Your task to perform on an android device: Search for the best Nike running shoes on Nike.com Image 0: 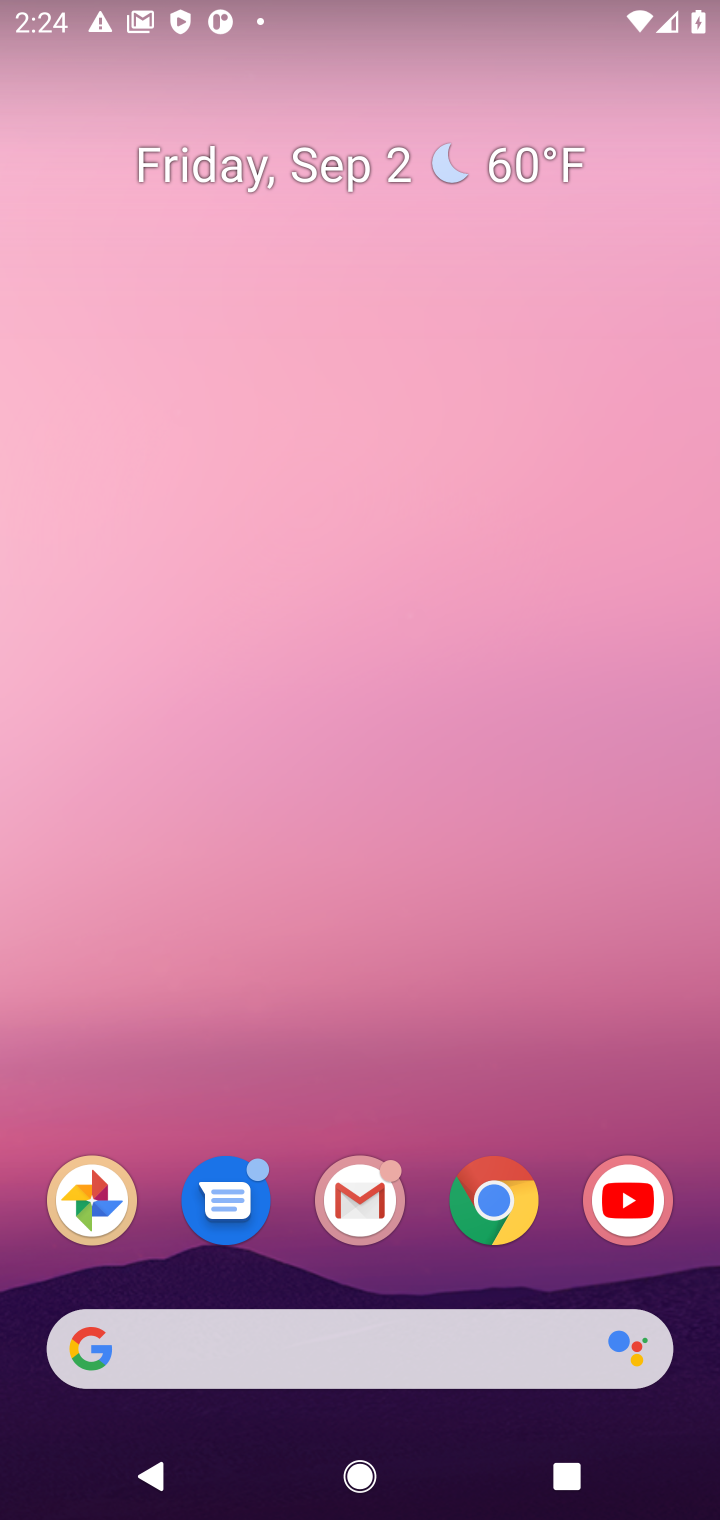
Step 0: click (494, 1195)
Your task to perform on an android device: Search for the best Nike running shoes on Nike.com Image 1: 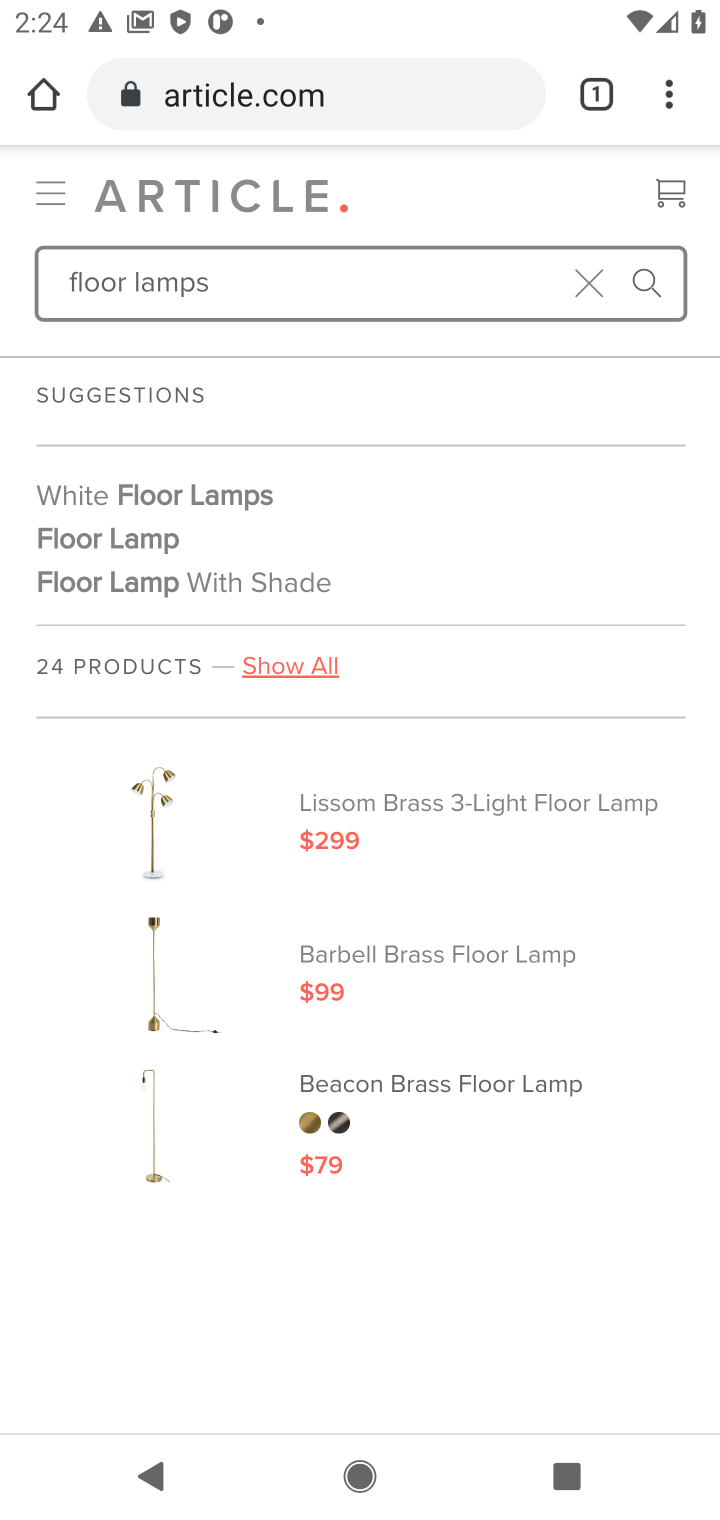
Step 1: click (461, 87)
Your task to perform on an android device: Search for the best Nike running shoes on Nike.com Image 2: 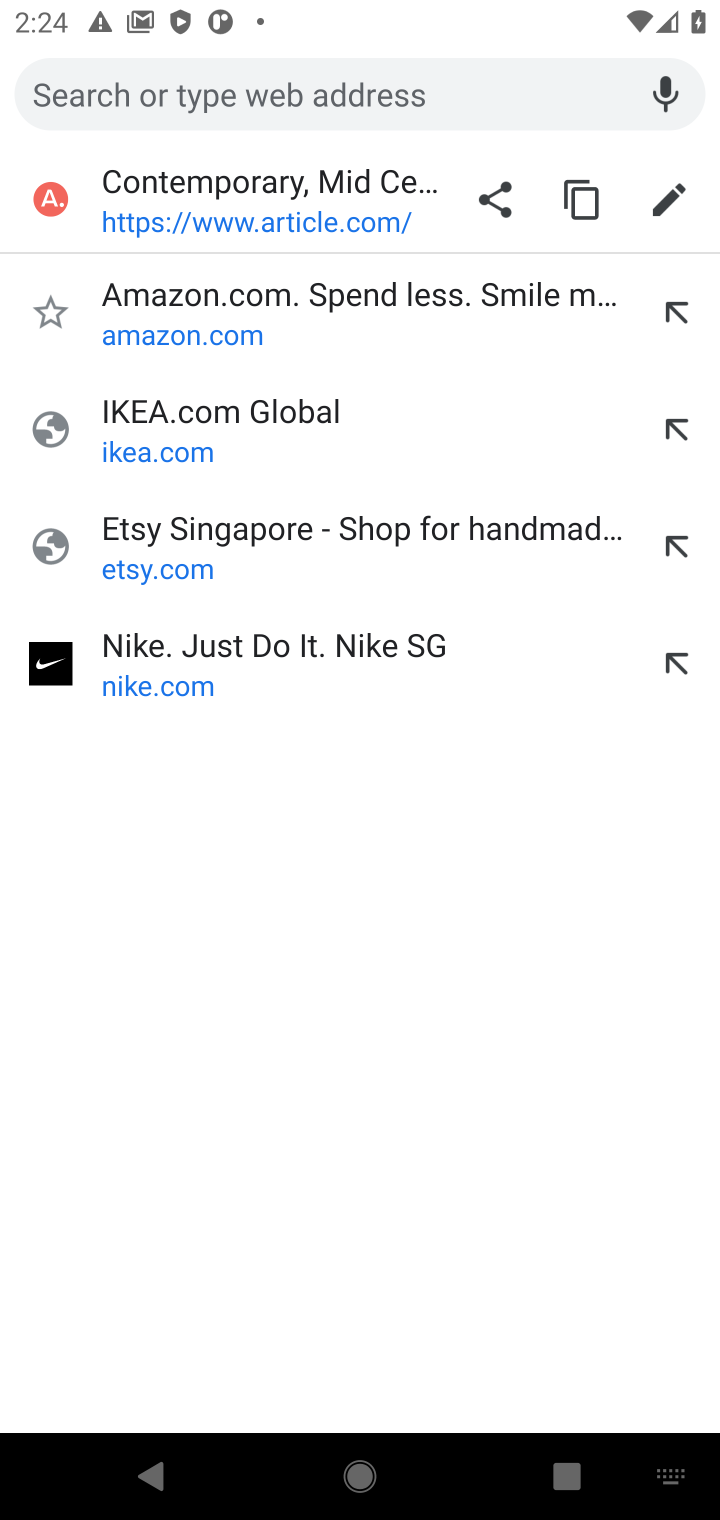
Step 2: type "Nike.com"
Your task to perform on an android device: Search for the best Nike running shoes on Nike.com Image 3: 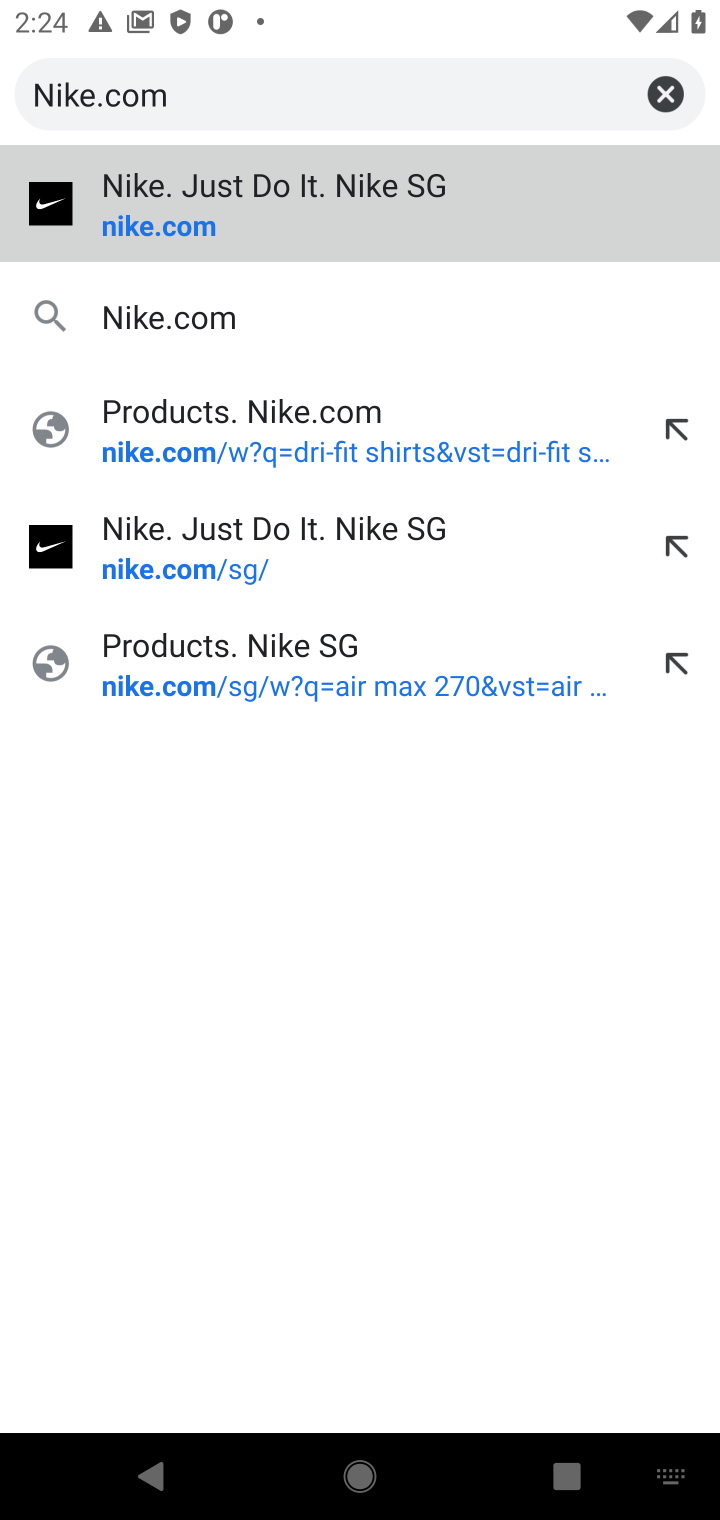
Step 3: press enter
Your task to perform on an android device: Search for the best Nike running shoes on Nike.com Image 4: 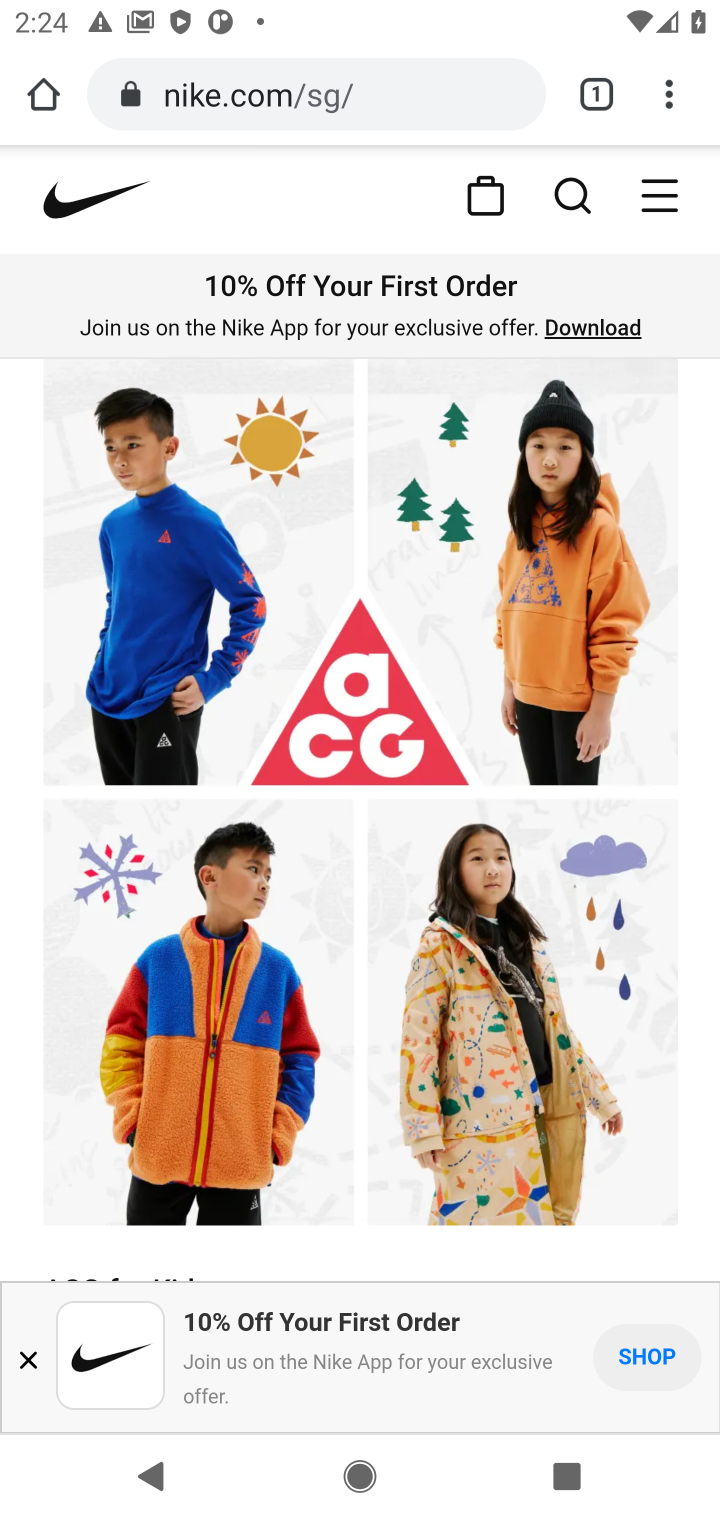
Step 4: click (562, 191)
Your task to perform on an android device: Search for the best Nike running shoes on Nike.com Image 5: 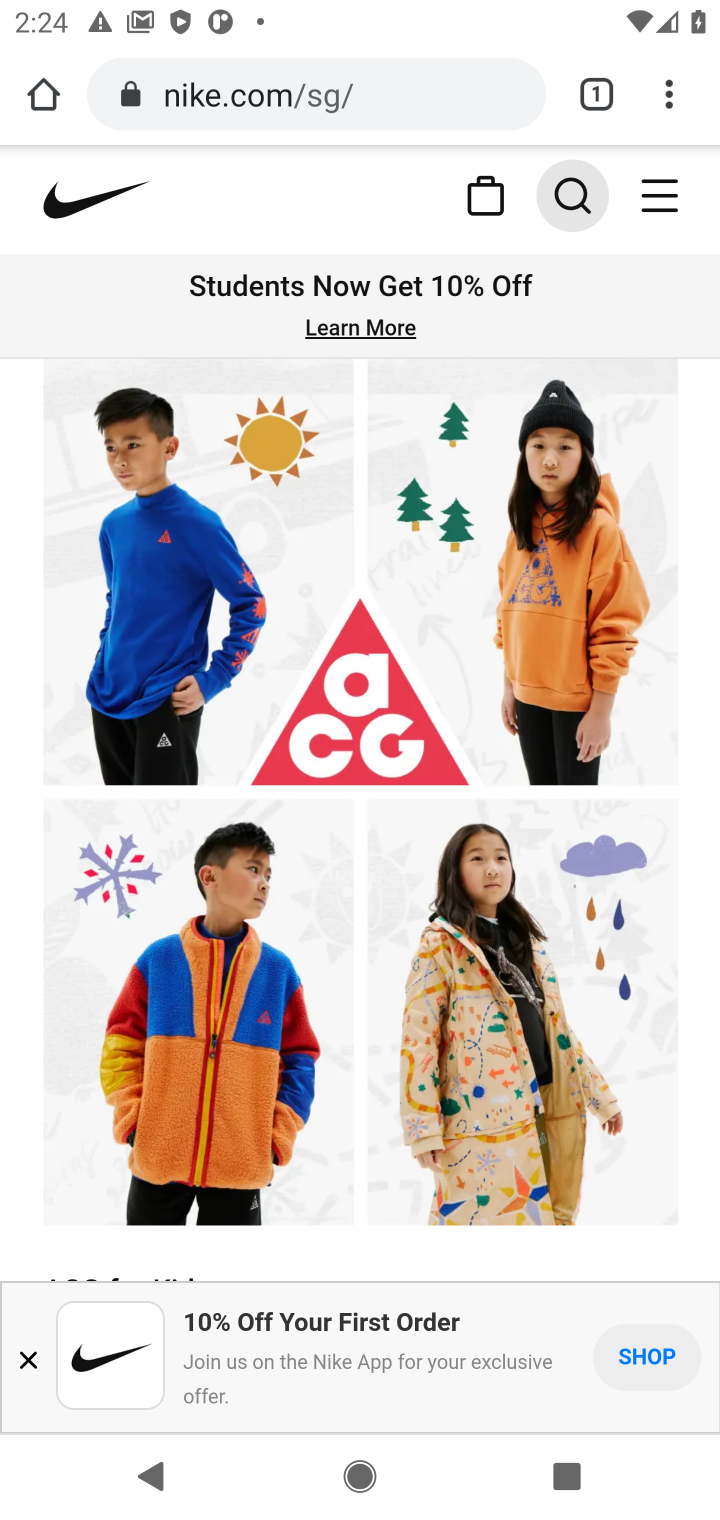
Step 5: click (581, 193)
Your task to perform on an android device: Search for the best Nike running shoes on Nike.com Image 6: 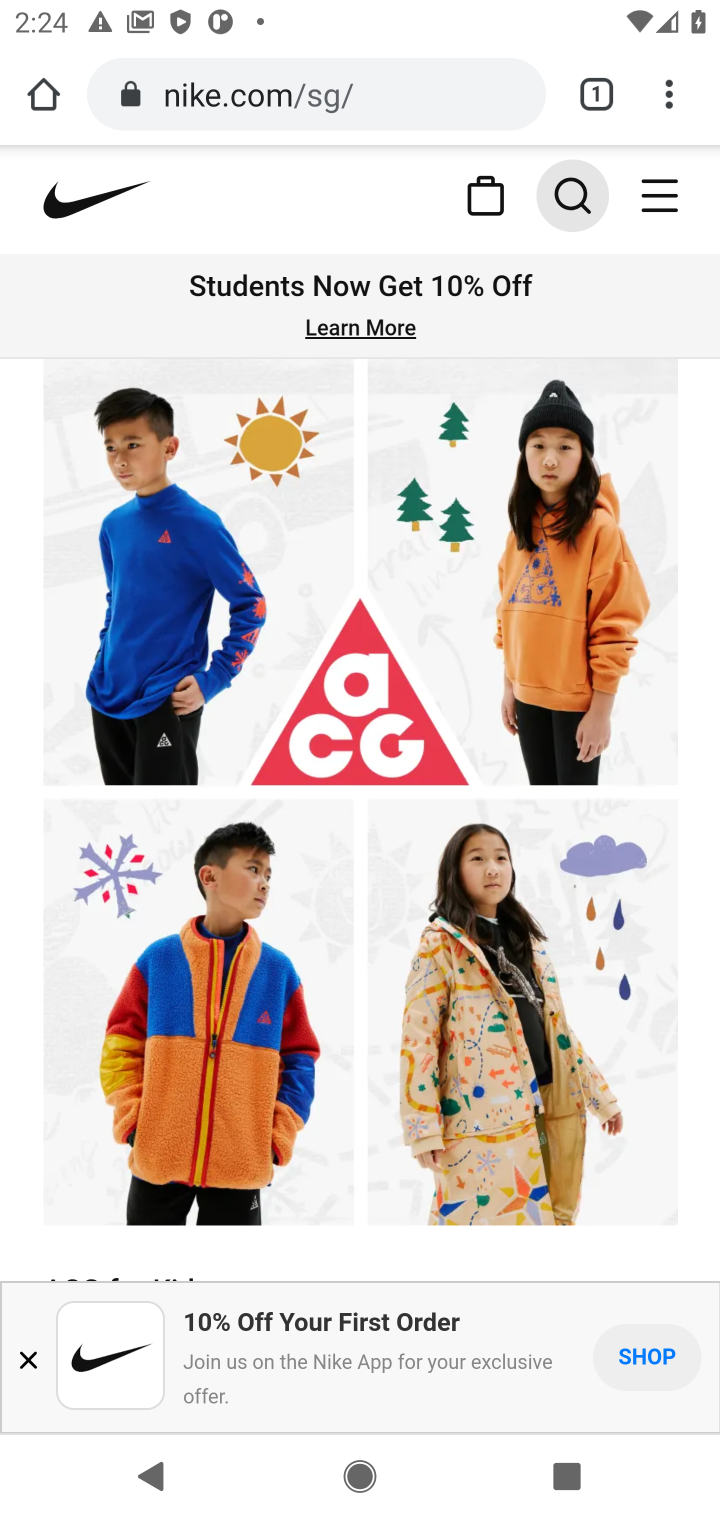
Step 6: click (536, 169)
Your task to perform on an android device: Search for the best Nike running shoes on Nike.com Image 7: 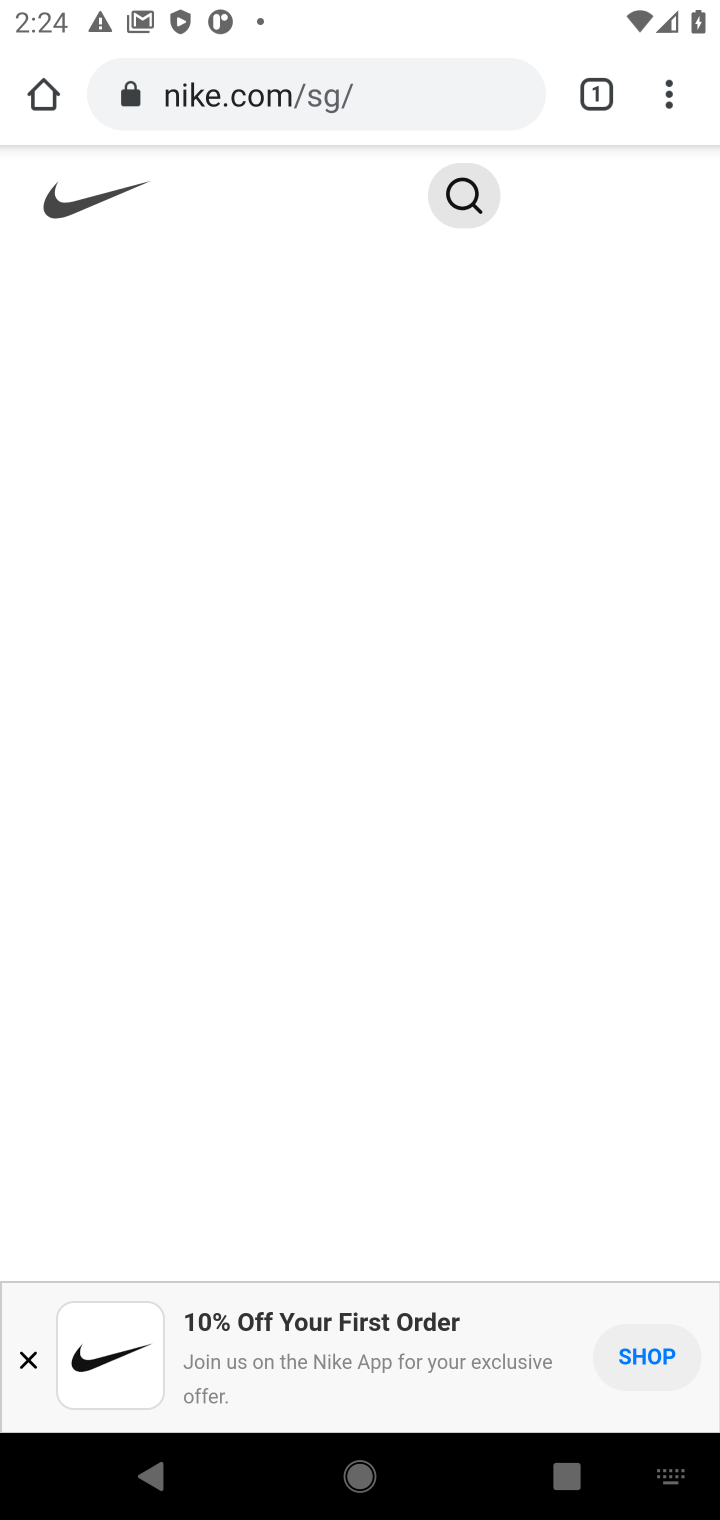
Step 7: click (385, 202)
Your task to perform on an android device: Search for the best Nike running shoes on Nike.com Image 8: 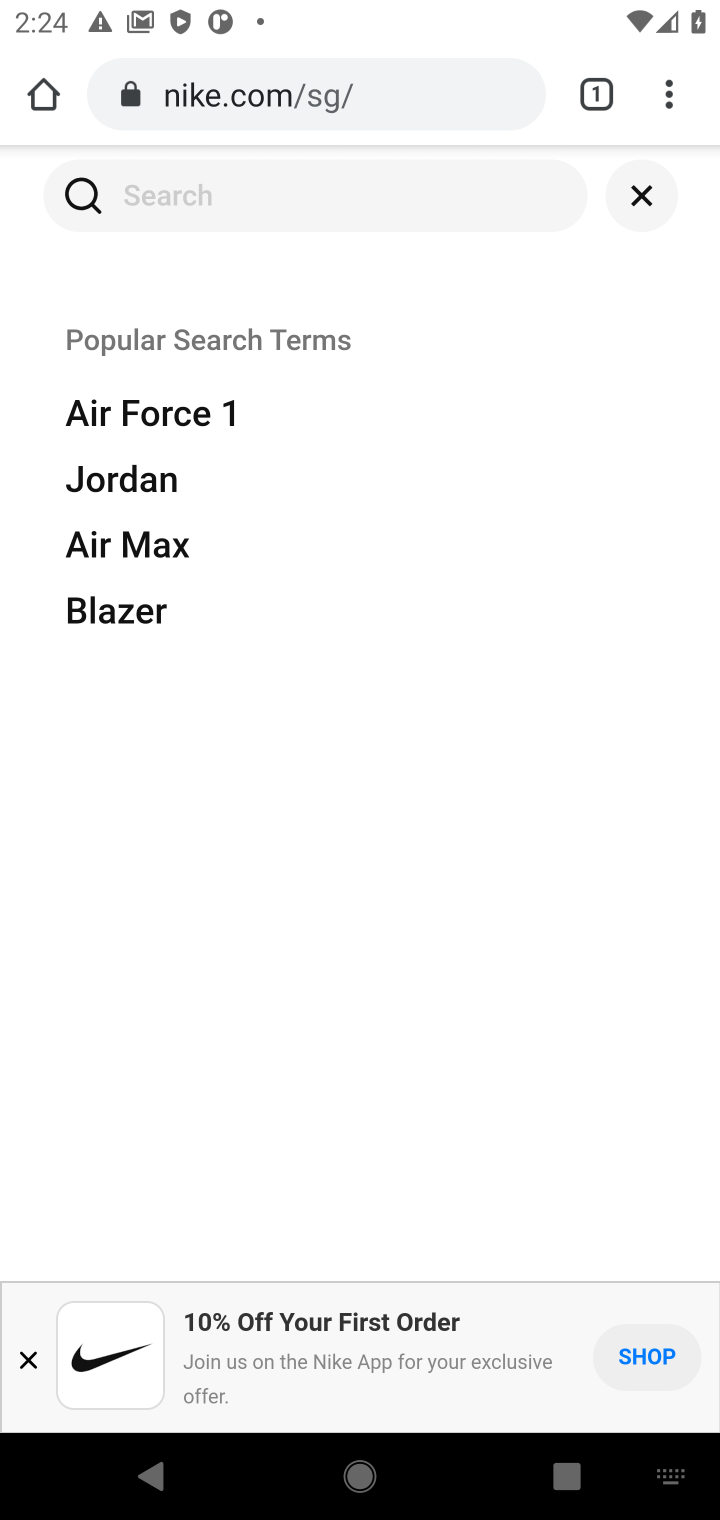
Step 8: type " running shoes"
Your task to perform on an android device: Search for the best Nike running shoes on Nike.com Image 9: 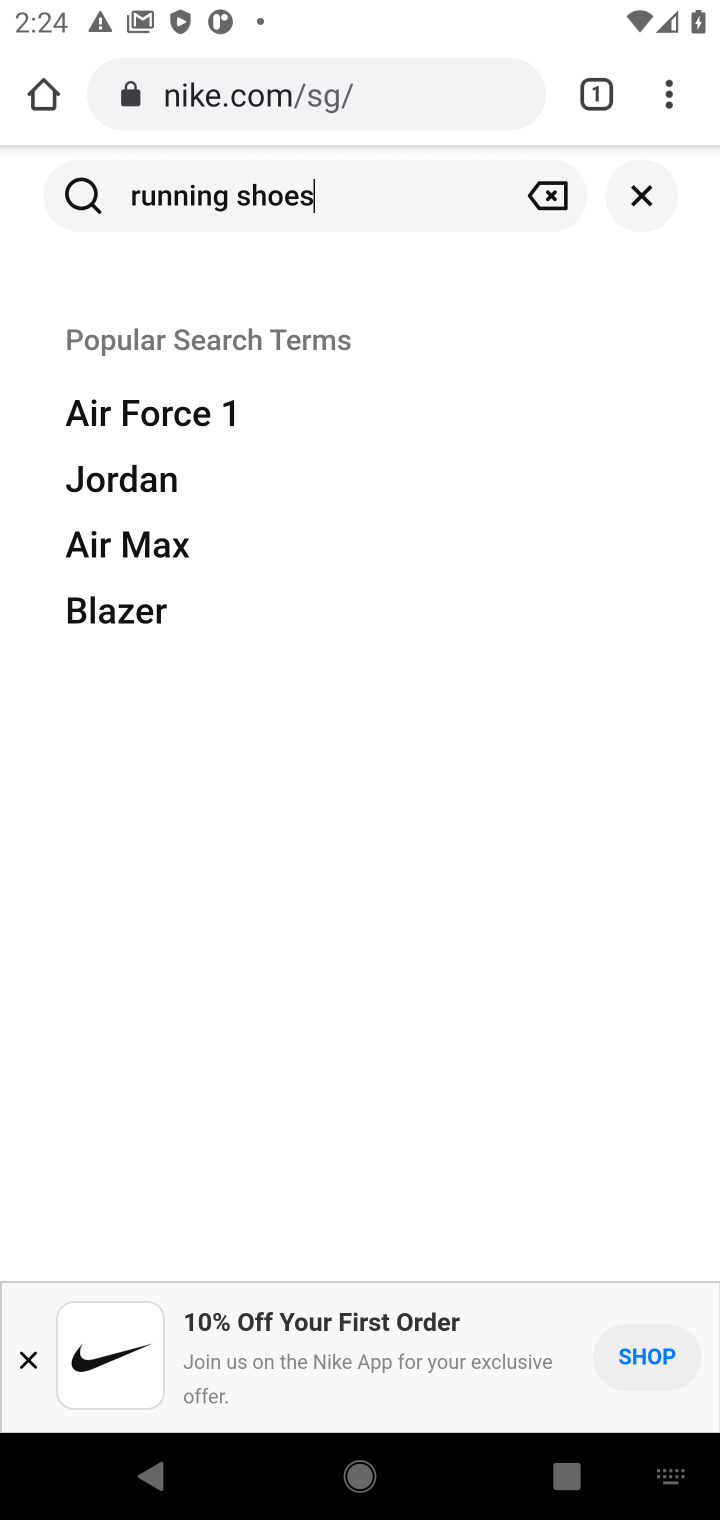
Step 9: press enter
Your task to perform on an android device: Search for the best Nike running shoes on Nike.com Image 10: 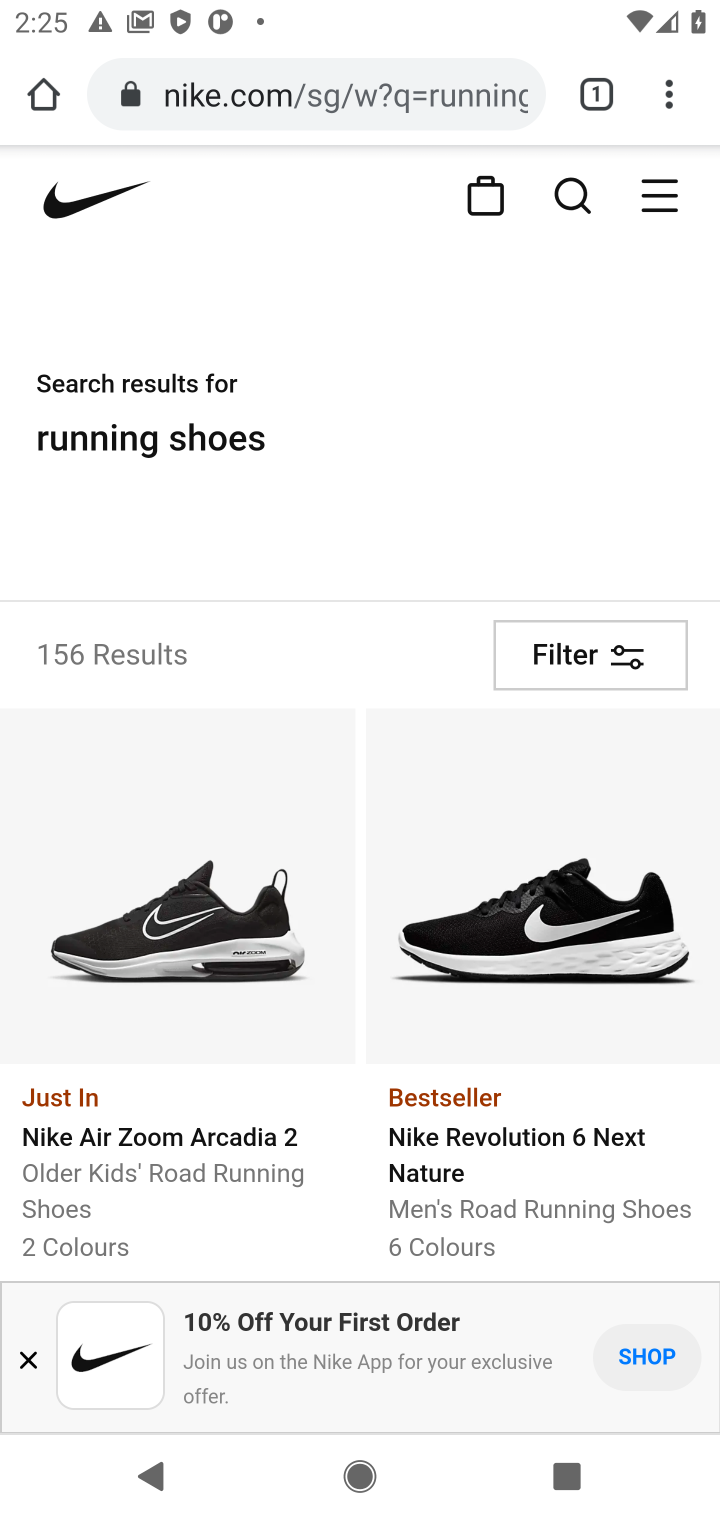
Step 10: drag from (324, 1204) to (581, 366)
Your task to perform on an android device: Search for the best Nike running shoes on Nike.com Image 11: 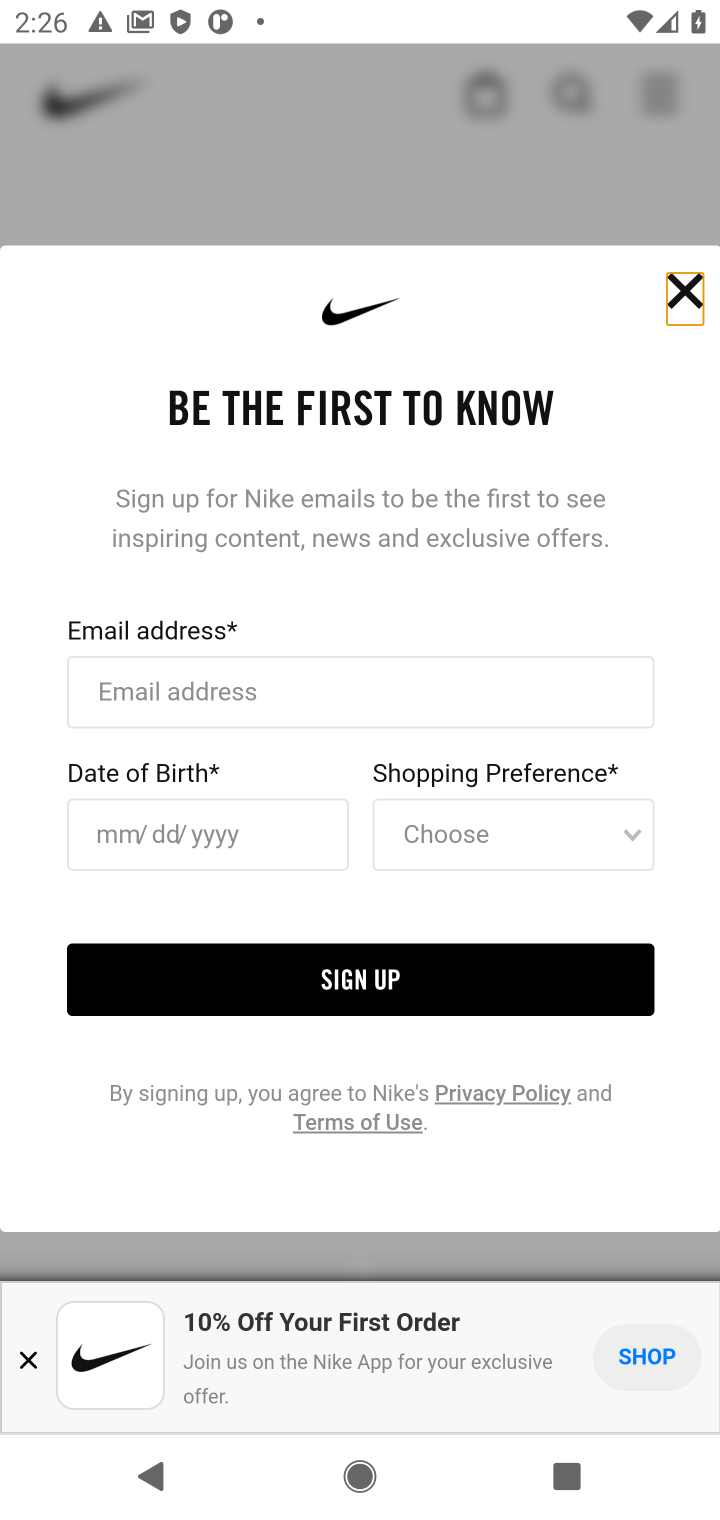
Step 11: click (683, 293)
Your task to perform on an android device: Search for the best Nike running shoes on Nike.com Image 12: 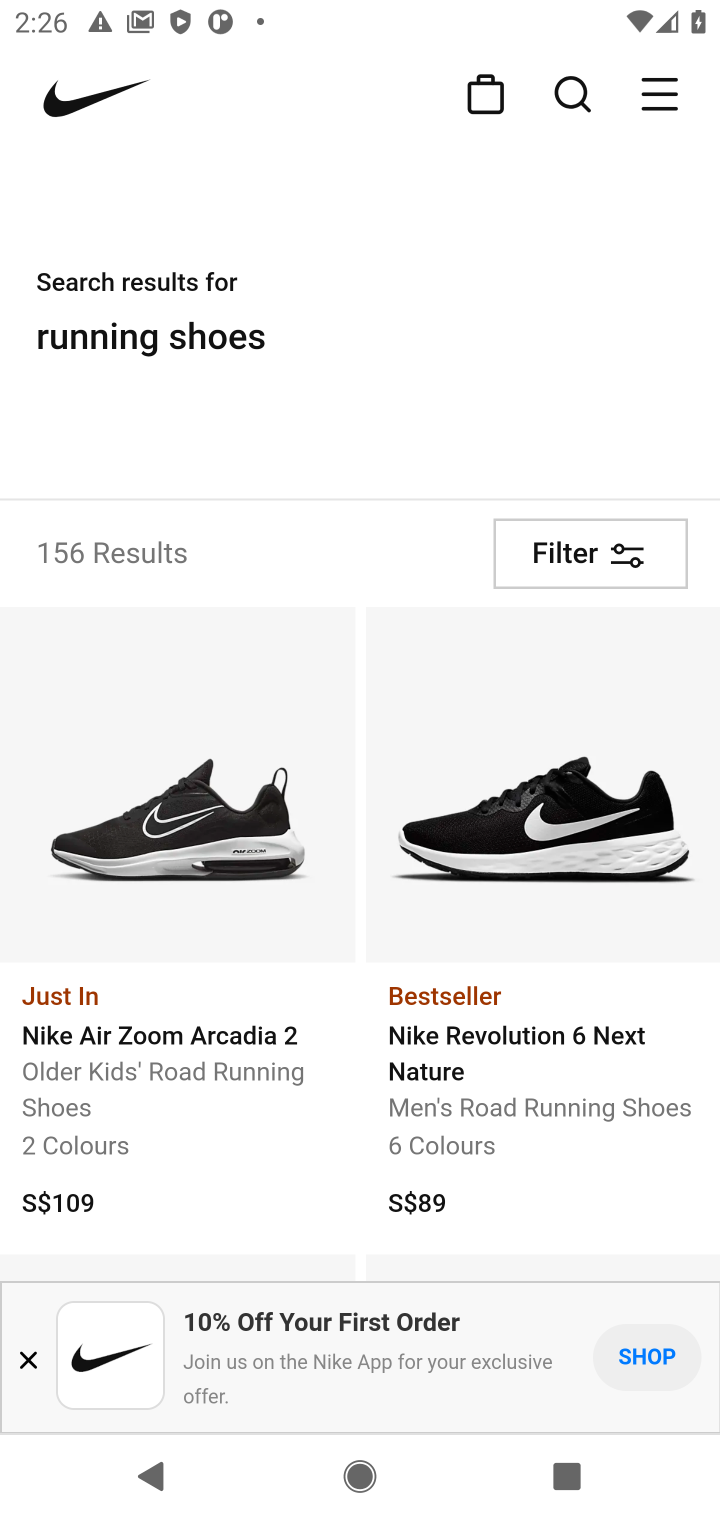
Step 12: task complete